Your task to perform on an android device: Do I have any events tomorrow? Image 0: 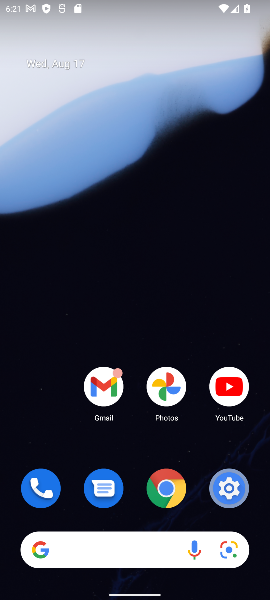
Step 0: drag from (105, 450) to (56, 104)
Your task to perform on an android device: Do I have any events tomorrow? Image 1: 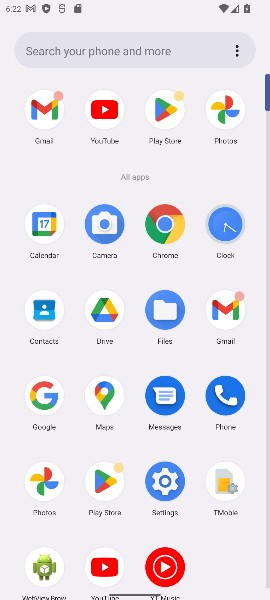
Step 1: click (40, 239)
Your task to perform on an android device: Do I have any events tomorrow? Image 2: 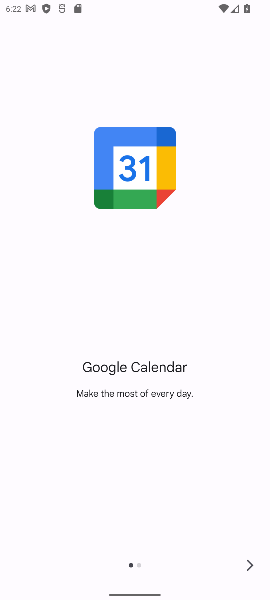
Step 2: click (252, 570)
Your task to perform on an android device: Do I have any events tomorrow? Image 3: 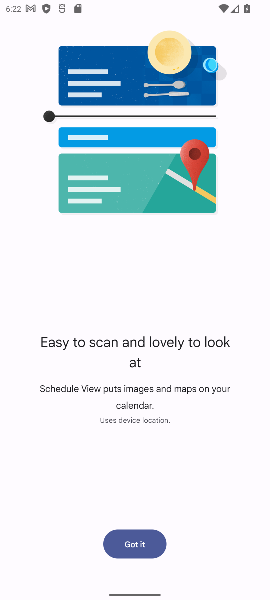
Step 3: click (141, 542)
Your task to perform on an android device: Do I have any events tomorrow? Image 4: 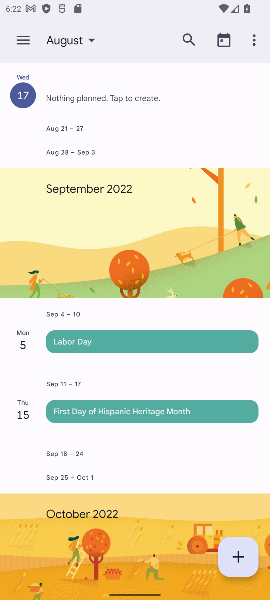
Step 4: click (64, 44)
Your task to perform on an android device: Do I have any events tomorrow? Image 5: 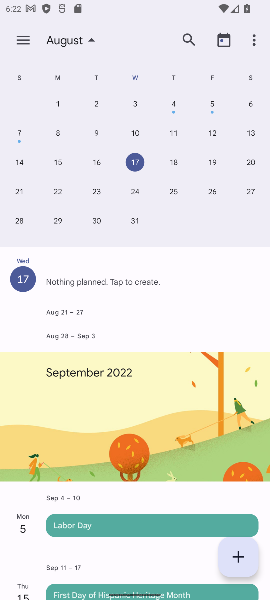
Step 5: click (174, 164)
Your task to perform on an android device: Do I have any events tomorrow? Image 6: 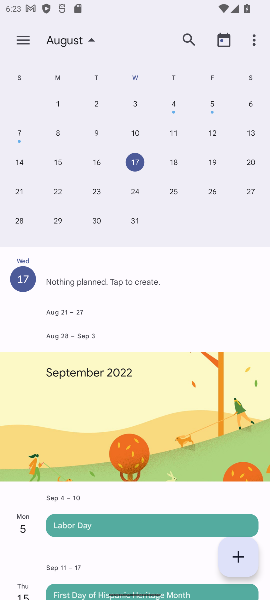
Step 6: click (174, 163)
Your task to perform on an android device: Do I have any events tomorrow? Image 7: 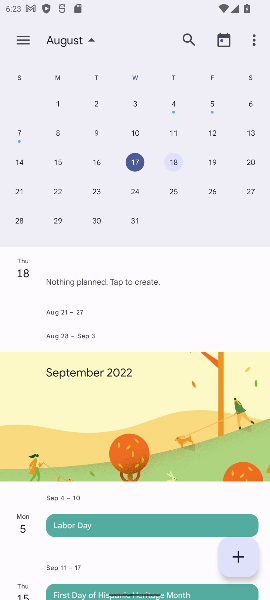
Step 7: task complete